Your task to perform on an android device: Open Youtube and go to "Your channel" Image 0: 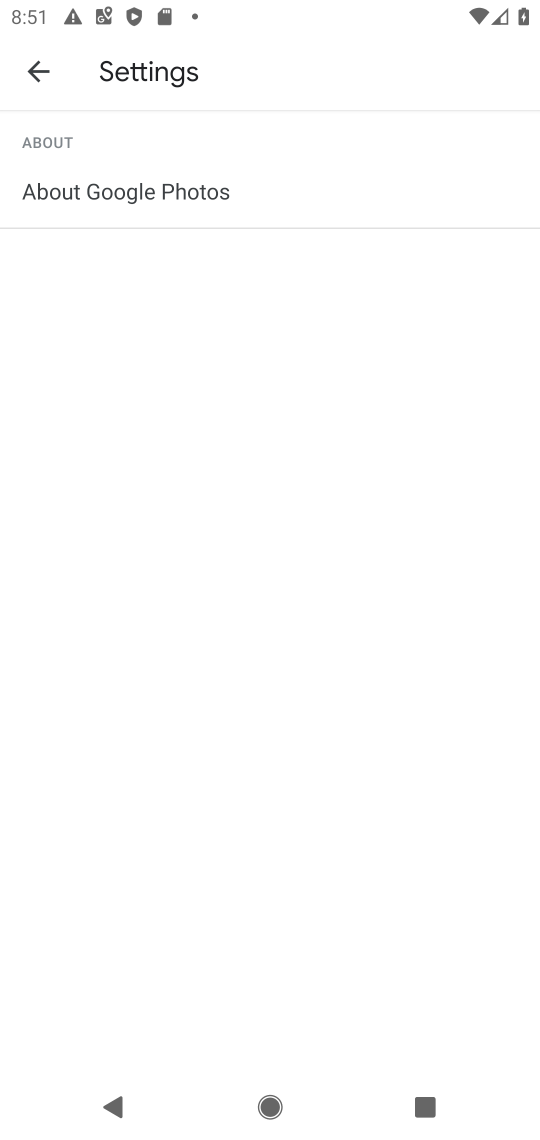
Step 0: press home button
Your task to perform on an android device: Open Youtube and go to "Your channel" Image 1: 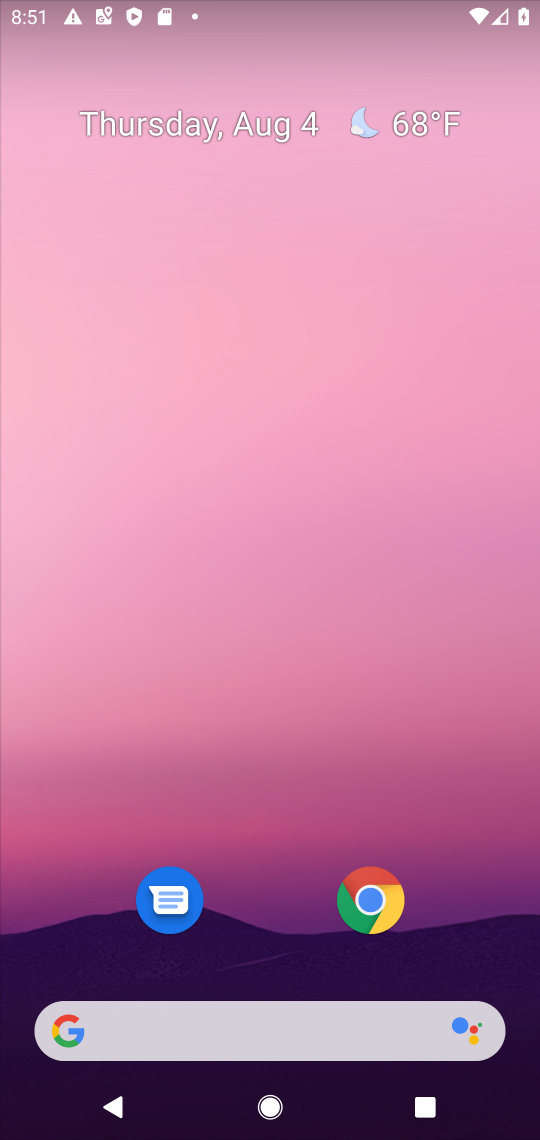
Step 1: drag from (248, 757) to (270, 263)
Your task to perform on an android device: Open Youtube and go to "Your channel" Image 2: 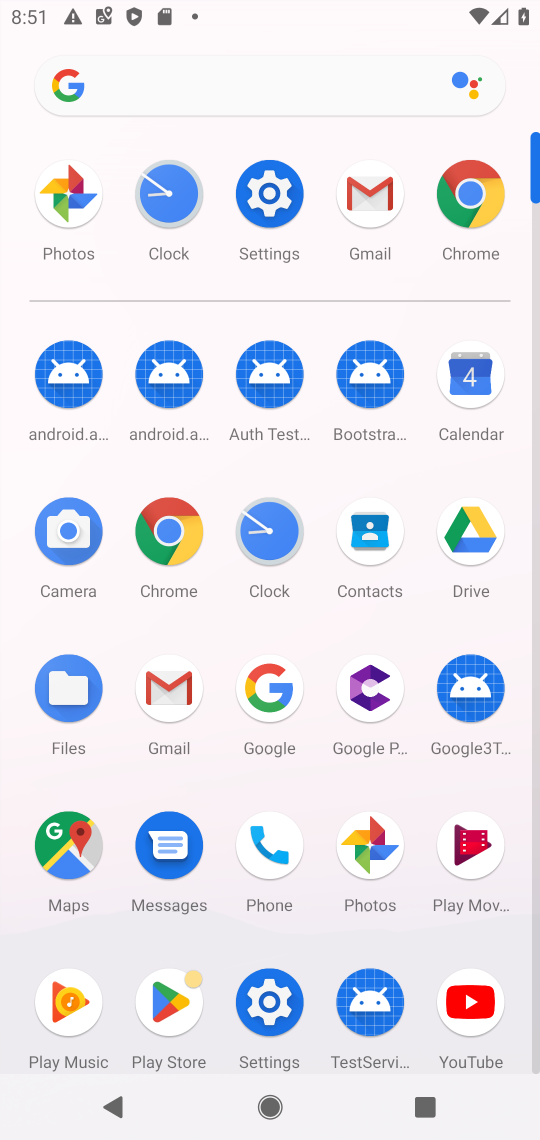
Step 2: click (467, 1018)
Your task to perform on an android device: Open Youtube and go to "Your channel" Image 3: 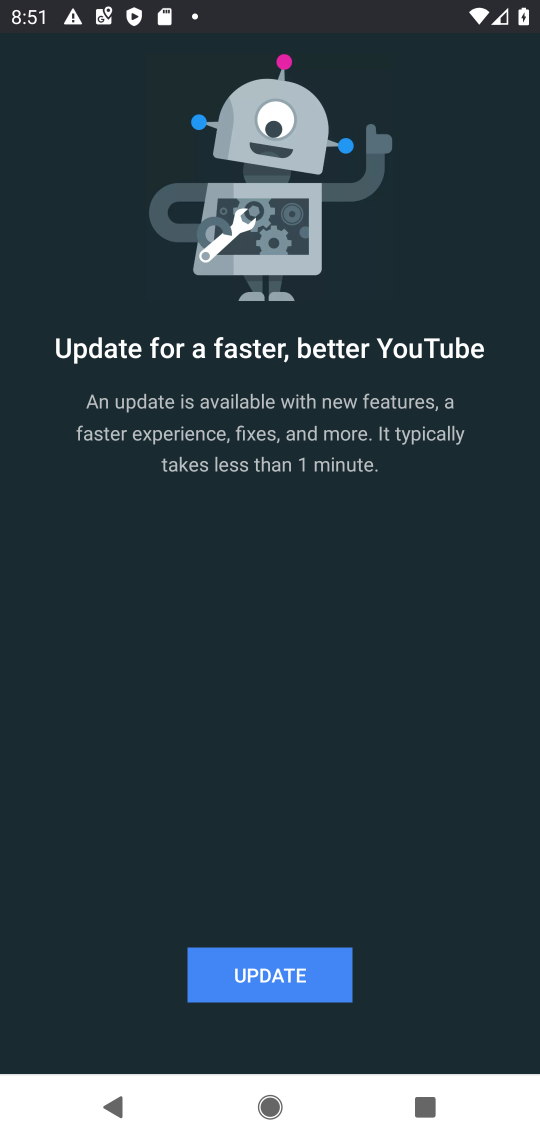
Step 3: click (254, 964)
Your task to perform on an android device: Open Youtube and go to "Your channel" Image 4: 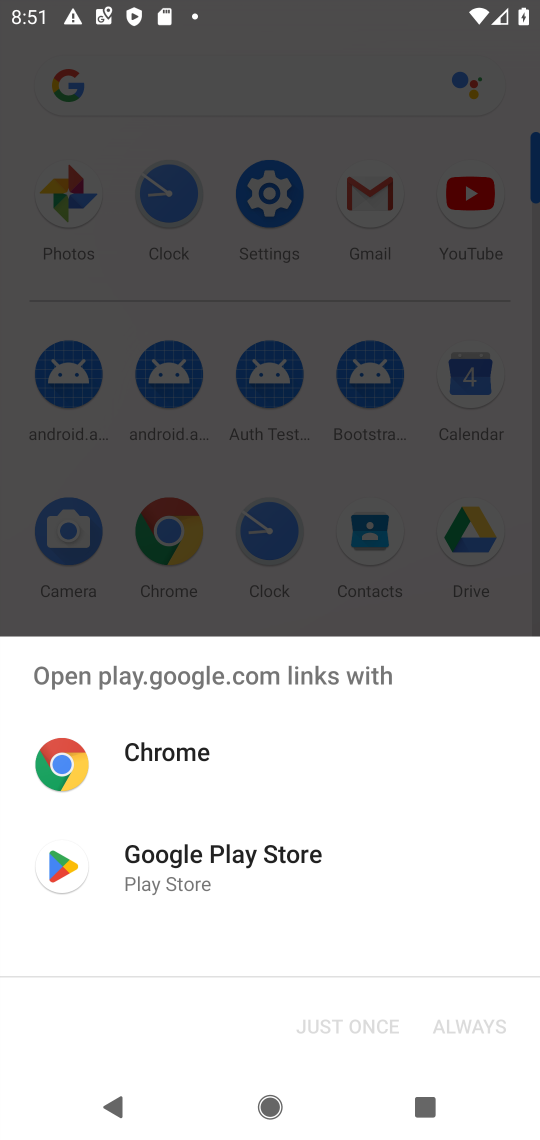
Step 4: click (211, 876)
Your task to perform on an android device: Open Youtube and go to "Your channel" Image 5: 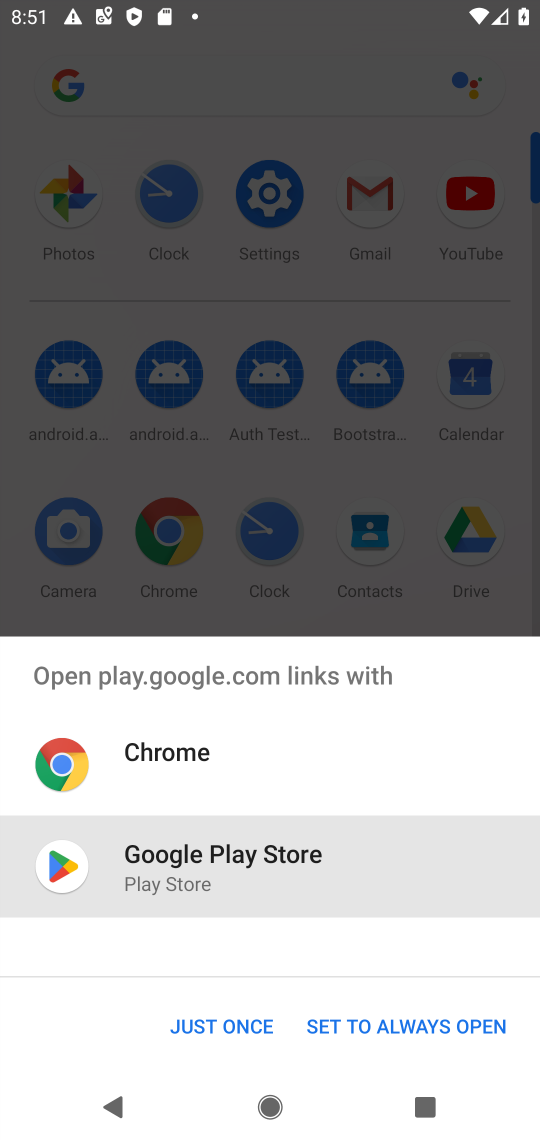
Step 5: click (339, 1030)
Your task to perform on an android device: Open Youtube and go to "Your channel" Image 6: 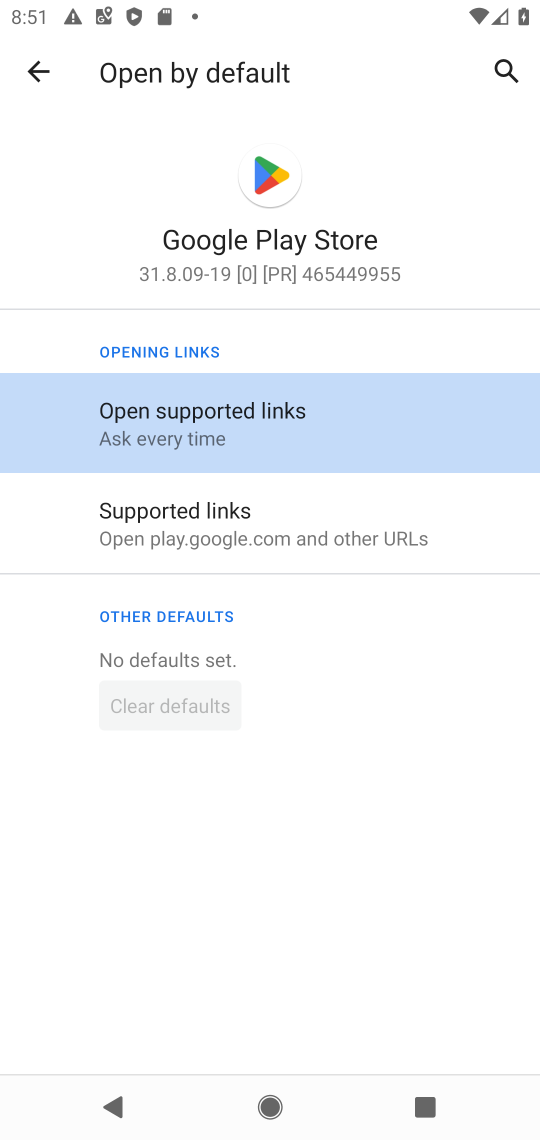
Step 6: click (182, 421)
Your task to perform on an android device: Open Youtube and go to "Your channel" Image 7: 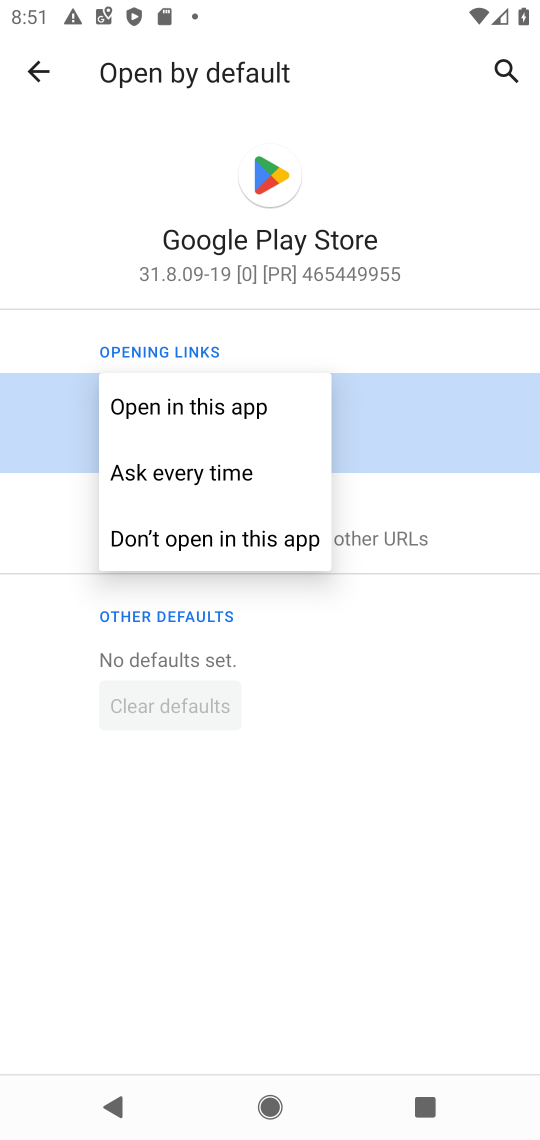
Step 7: click (167, 401)
Your task to perform on an android device: Open Youtube and go to "Your channel" Image 8: 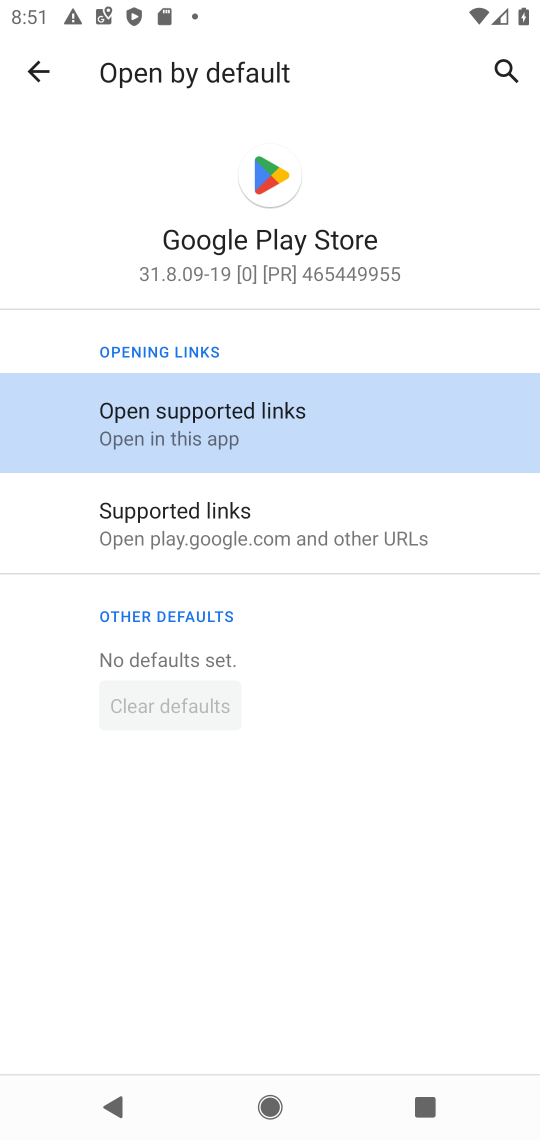
Step 8: click (37, 73)
Your task to perform on an android device: Open Youtube and go to "Your channel" Image 9: 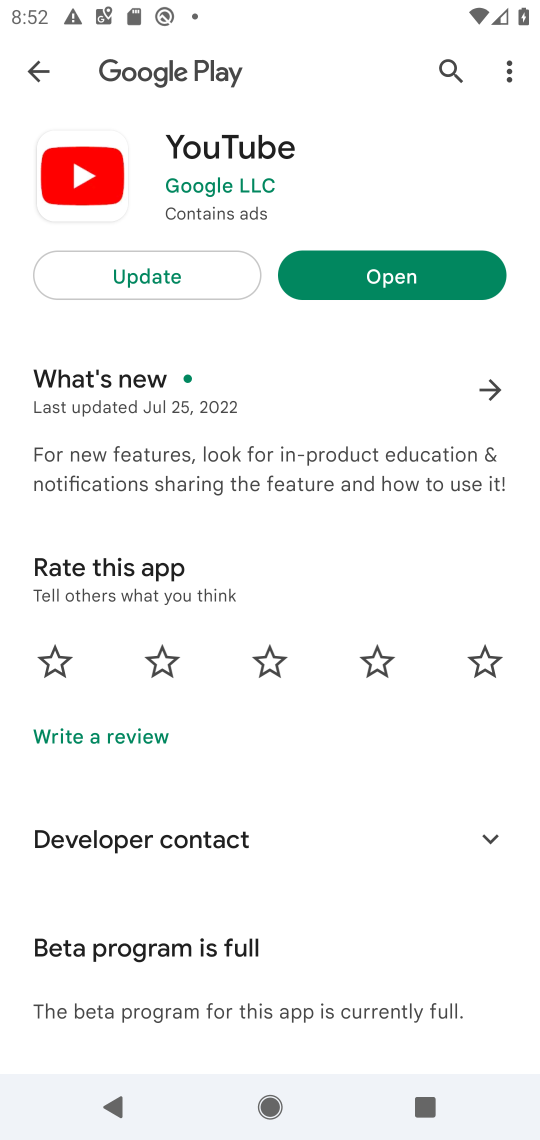
Step 9: click (229, 266)
Your task to perform on an android device: Open Youtube and go to "Your channel" Image 10: 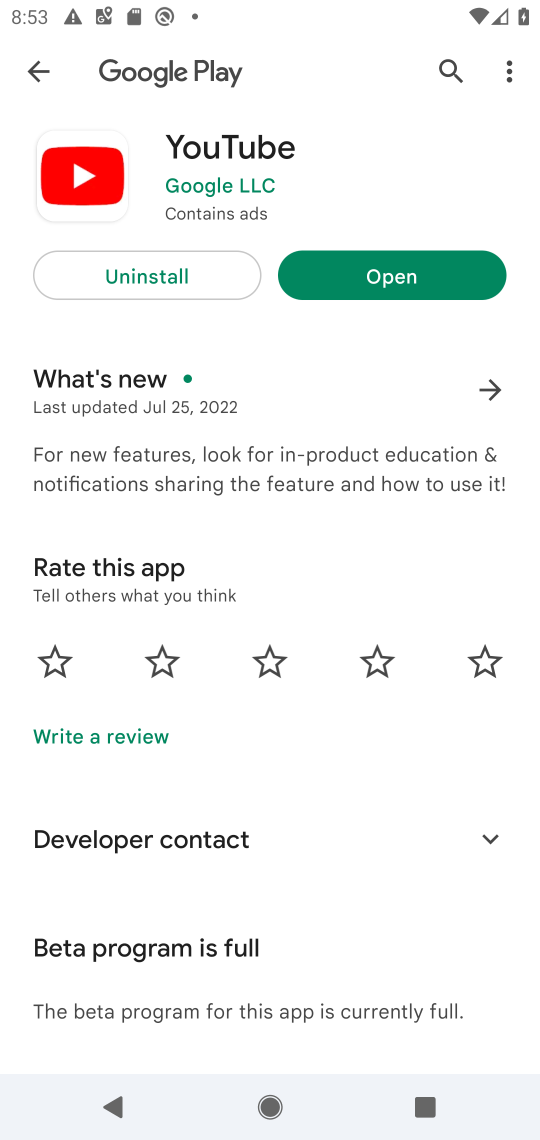
Step 10: click (385, 272)
Your task to perform on an android device: Open Youtube and go to "Your channel" Image 11: 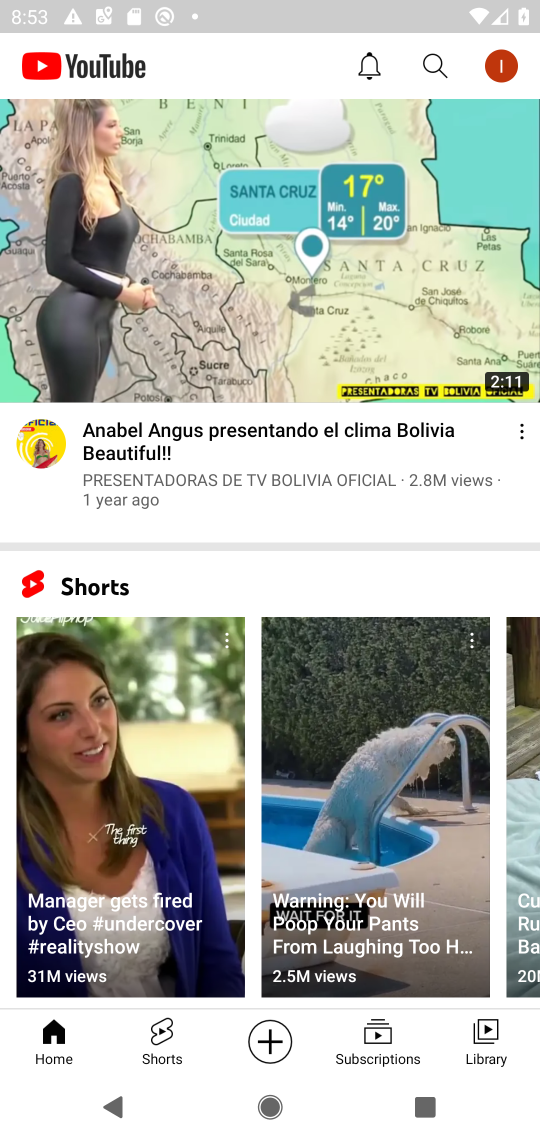
Step 11: click (498, 68)
Your task to perform on an android device: Open Youtube and go to "Your channel" Image 12: 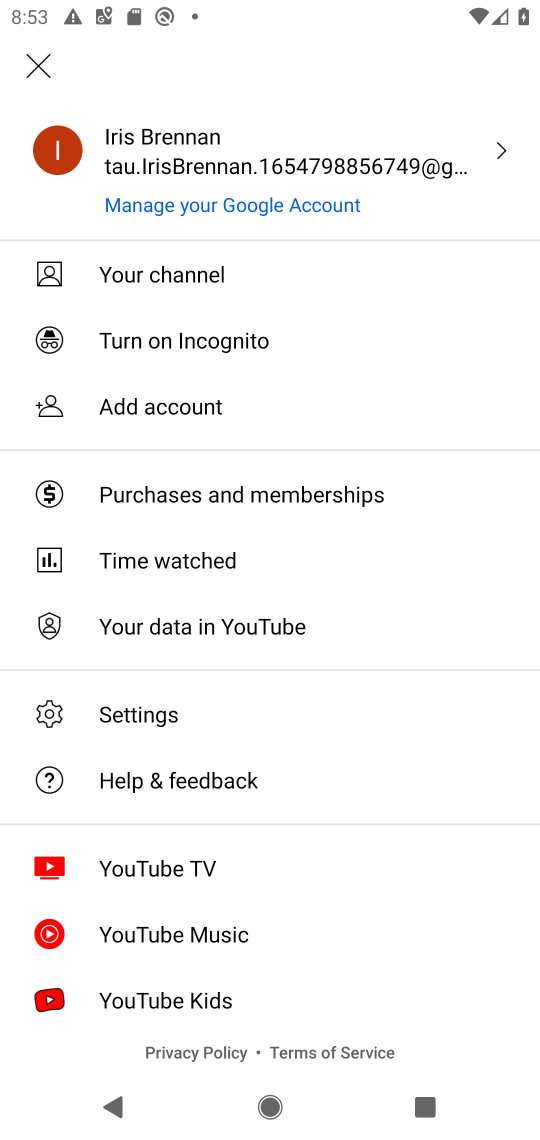
Step 12: click (194, 274)
Your task to perform on an android device: Open Youtube and go to "Your channel" Image 13: 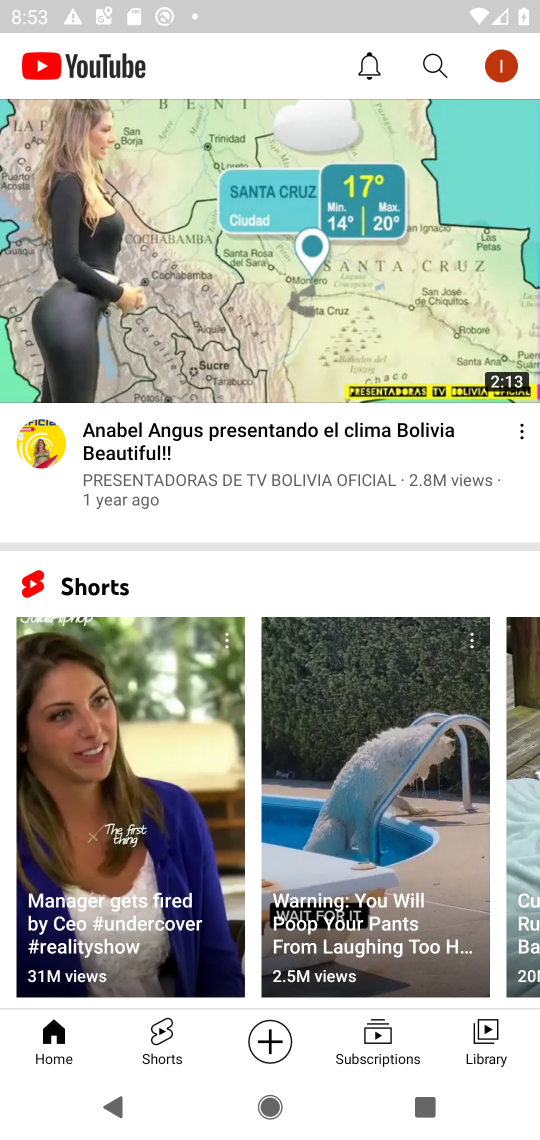
Step 13: click (499, 73)
Your task to perform on an android device: Open Youtube and go to "Your channel" Image 14: 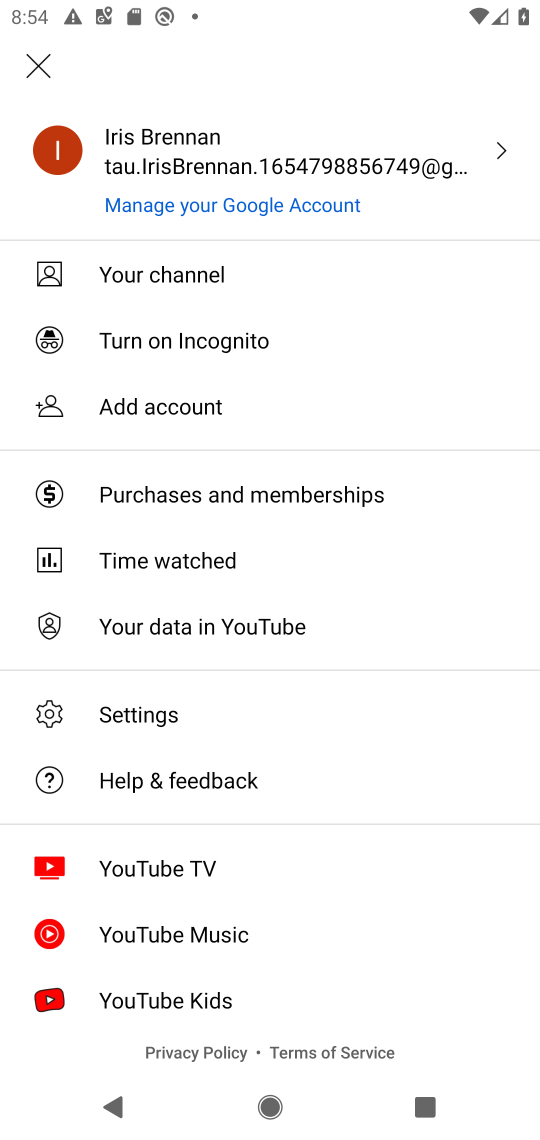
Step 14: click (168, 278)
Your task to perform on an android device: Open Youtube and go to "Your channel" Image 15: 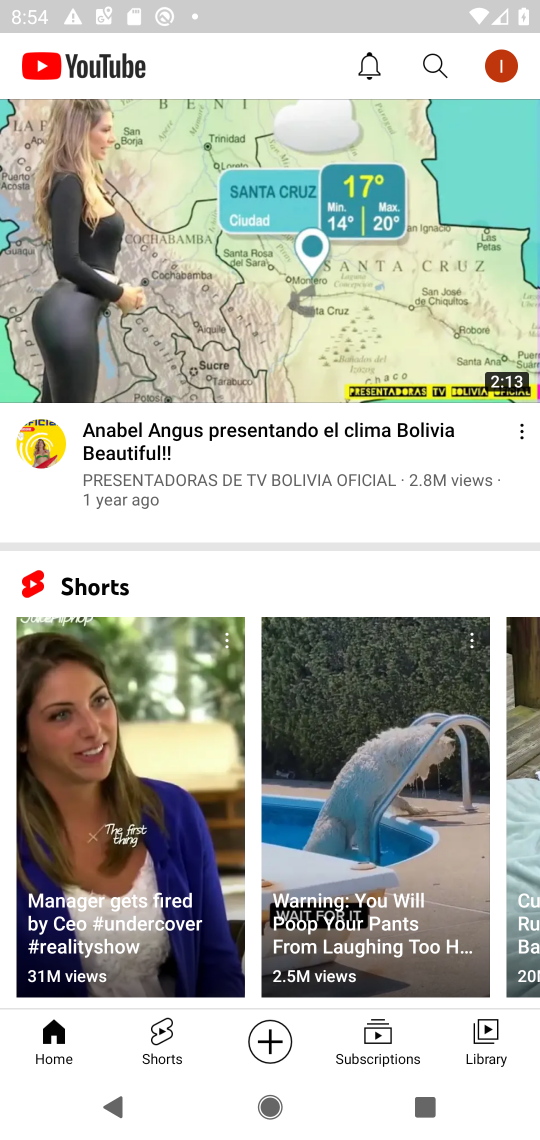
Step 15: task complete